Your task to perform on an android device: remove spam from my inbox in the gmail app Image 0: 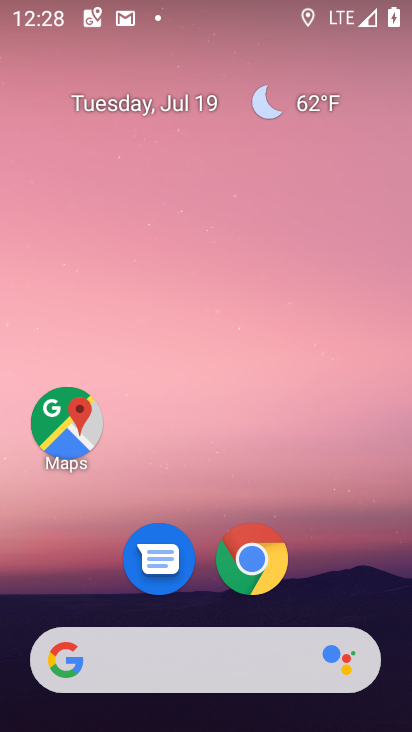
Step 0: drag from (218, 685) to (264, 211)
Your task to perform on an android device: remove spam from my inbox in the gmail app Image 1: 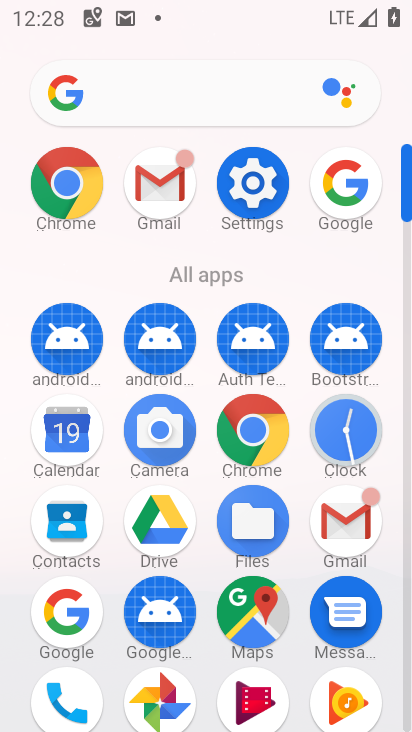
Step 1: click (361, 518)
Your task to perform on an android device: remove spam from my inbox in the gmail app Image 2: 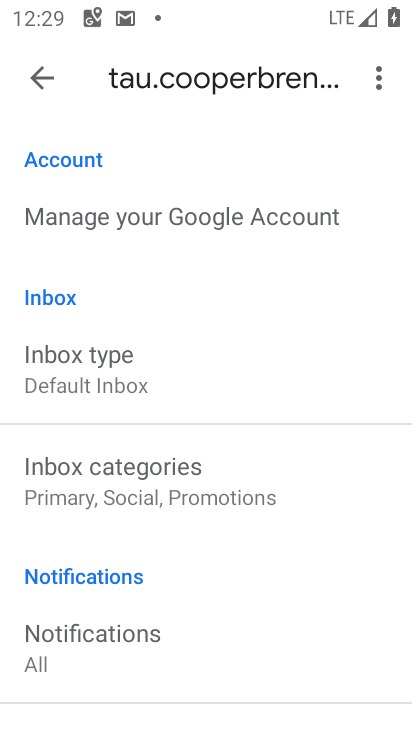
Step 2: drag from (182, 602) to (216, 429)
Your task to perform on an android device: remove spam from my inbox in the gmail app Image 3: 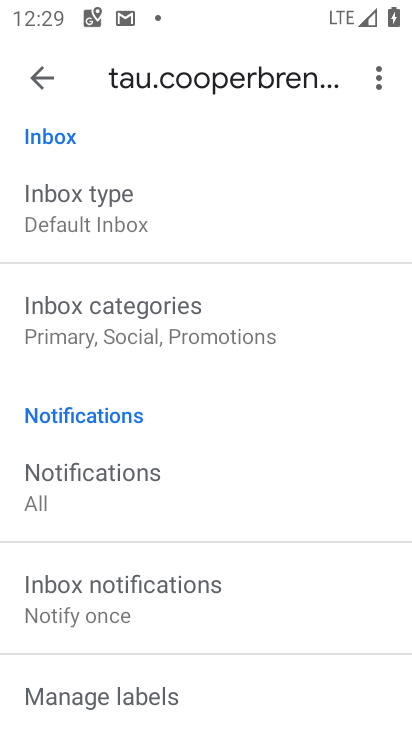
Step 3: click (43, 81)
Your task to perform on an android device: remove spam from my inbox in the gmail app Image 4: 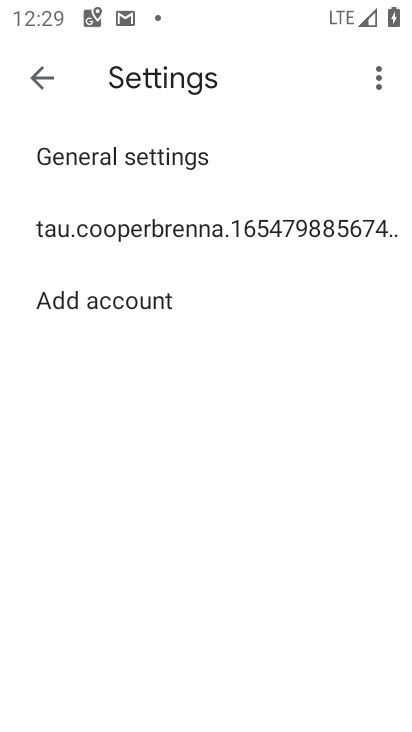
Step 4: click (30, 89)
Your task to perform on an android device: remove spam from my inbox in the gmail app Image 5: 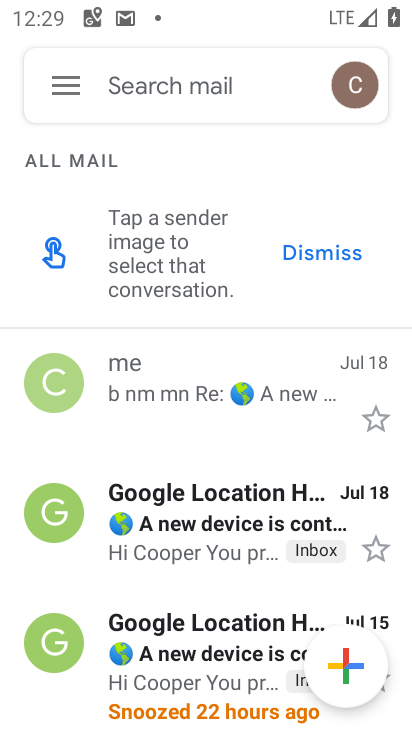
Step 5: click (53, 84)
Your task to perform on an android device: remove spam from my inbox in the gmail app Image 6: 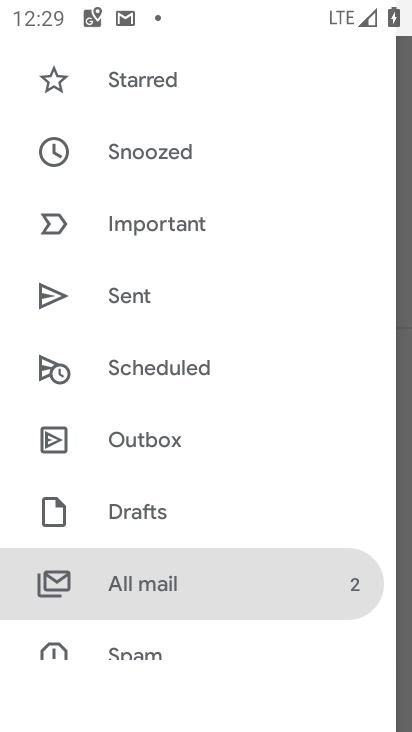
Step 6: task complete